Your task to perform on an android device: Open the Play Movies app and select the watchlist tab. Image 0: 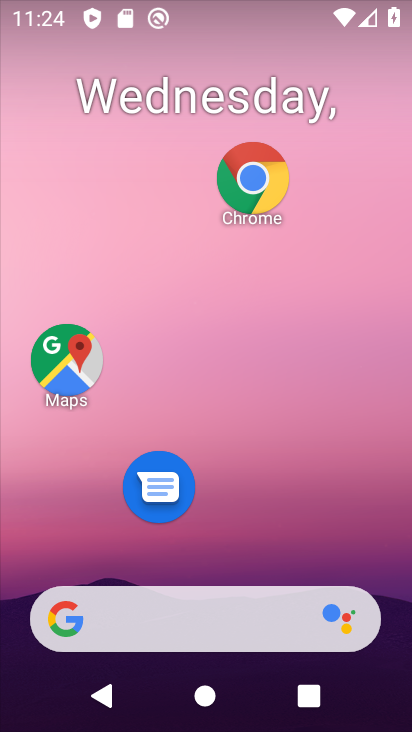
Step 0: drag from (302, 448) to (304, 85)
Your task to perform on an android device: Open the Play Movies app and select the watchlist tab. Image 1: 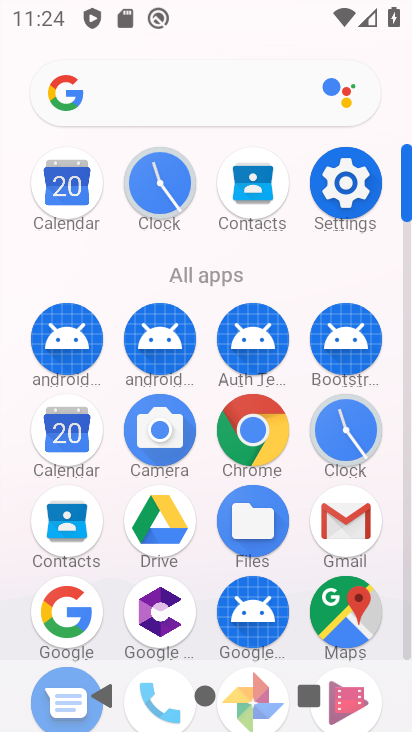
Step 1: drag from (290, 526) to (287, 241)
Your task to perform on an android device: Open the Play Movies app and select the watchlist tab. Image 2: 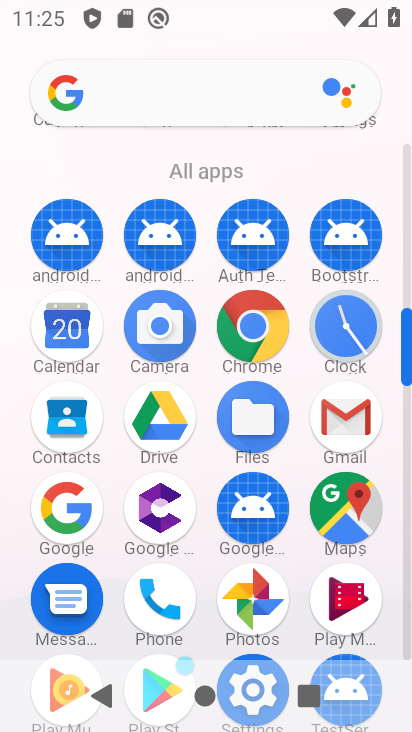
Step 2: click (346, 593)
Your task to perform on an android device: Open the Play Movies app and select the watchlist tab. Image 3: 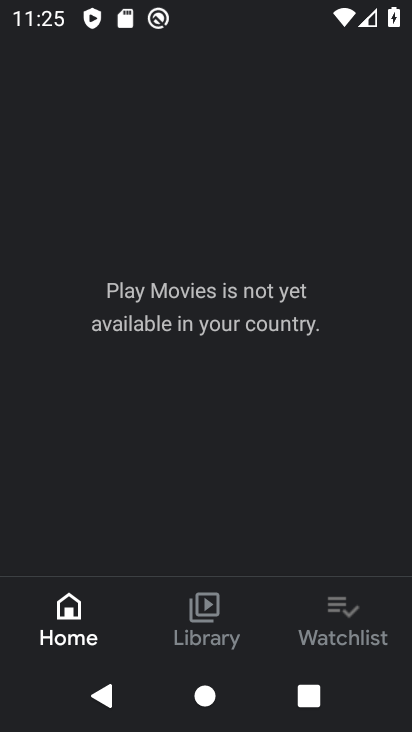
Step 3: click (369, 620)
Your task to perform on an android device: Open the Play Movies app and select the watchlist tab. Image 4: 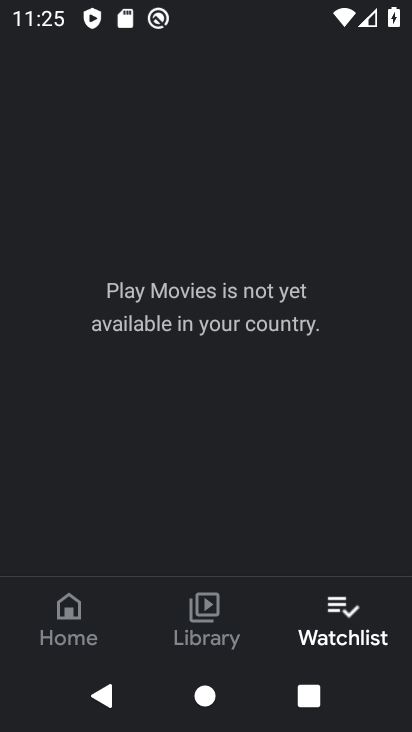
Step 4: task complete